Your task to perform on an android device: Search for "amazon basics triple a" on target.com, select the first entry, add it to the cart, then select checkout. Image 0: 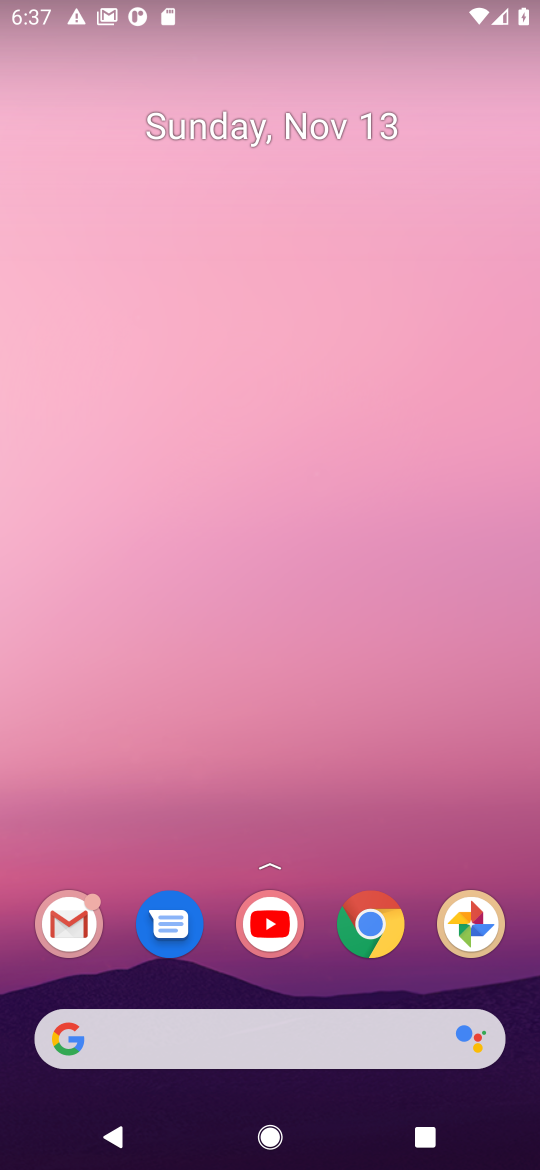
Step 0: click (366, 924)
Your task to perform on an android device: Search for "amazon basics triple a" on target.com, select the first entry, add it to the cart, then select checkout. Image 1: 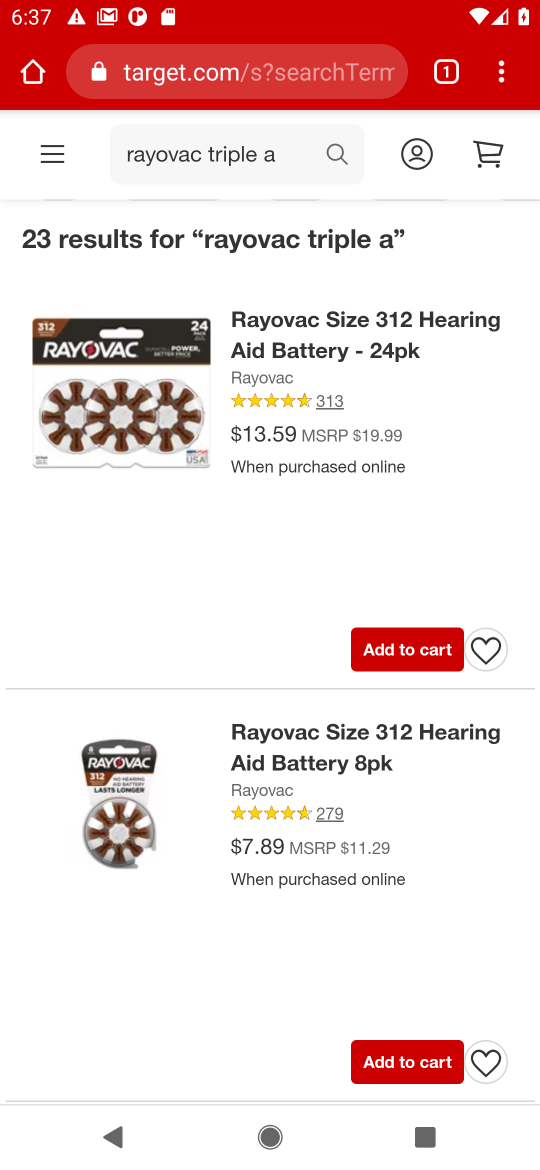
Step 1: click (337, 154)
Your task to perform on an android device: Search for "amazon basics triple a" on target.com, select the first entry, add it to the cart, then select checkout. Image 2: 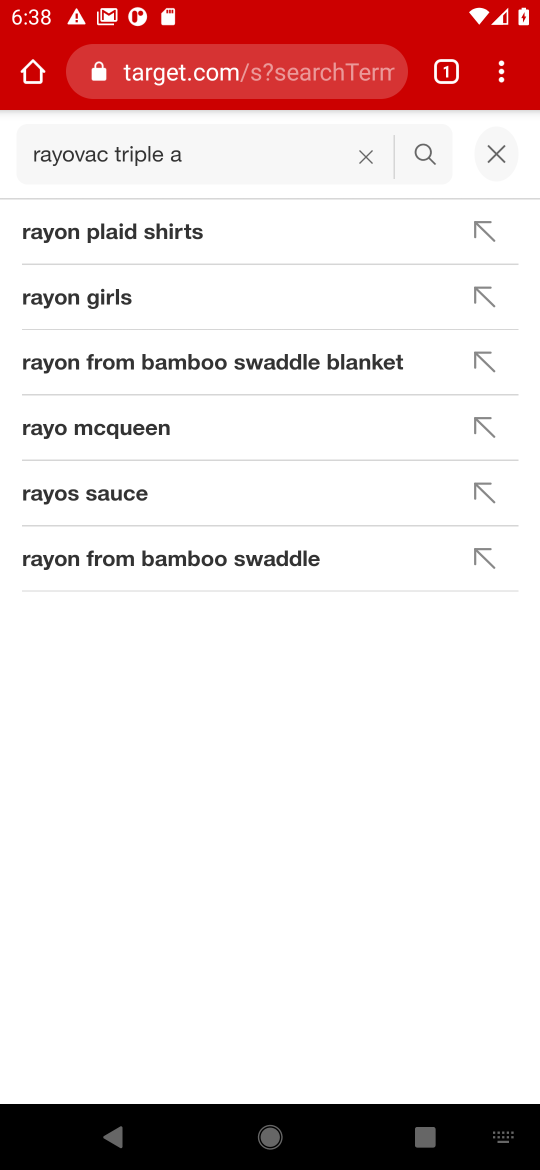
Step 2: click (359, 160)
Your task to perform on an android device: Search for "amazon basics triple a" on target.com, select the first entry, add it to the cart, then select checkout. Image 3: 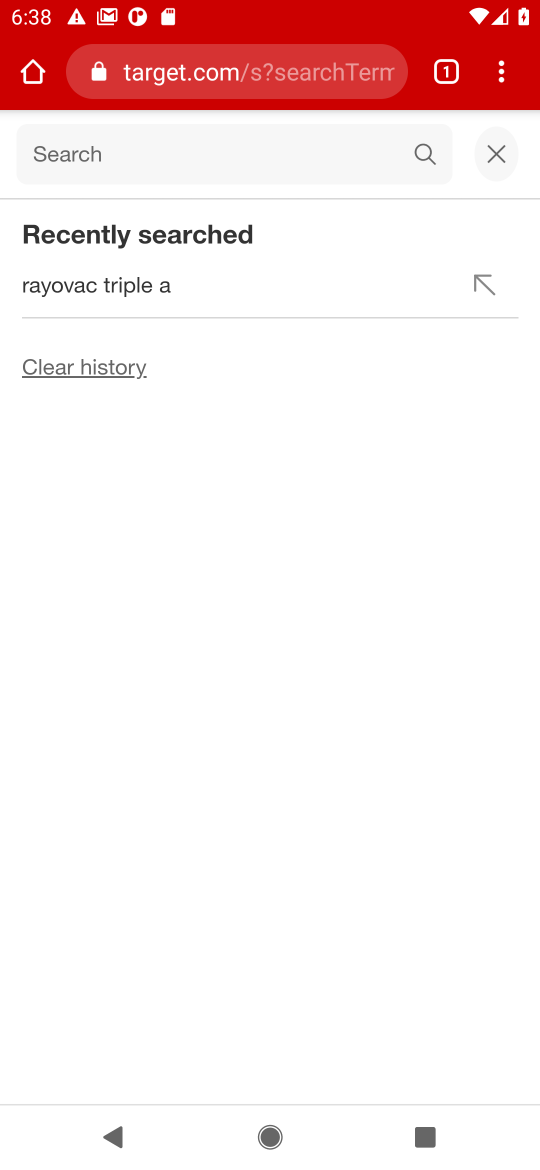
Step 3: type "amazon basics triple a"
Your task to perform on an android device: Search for "amazon basics triple a" on target.com, select the first entry, add it to the cart, then select checkout. Image 4: 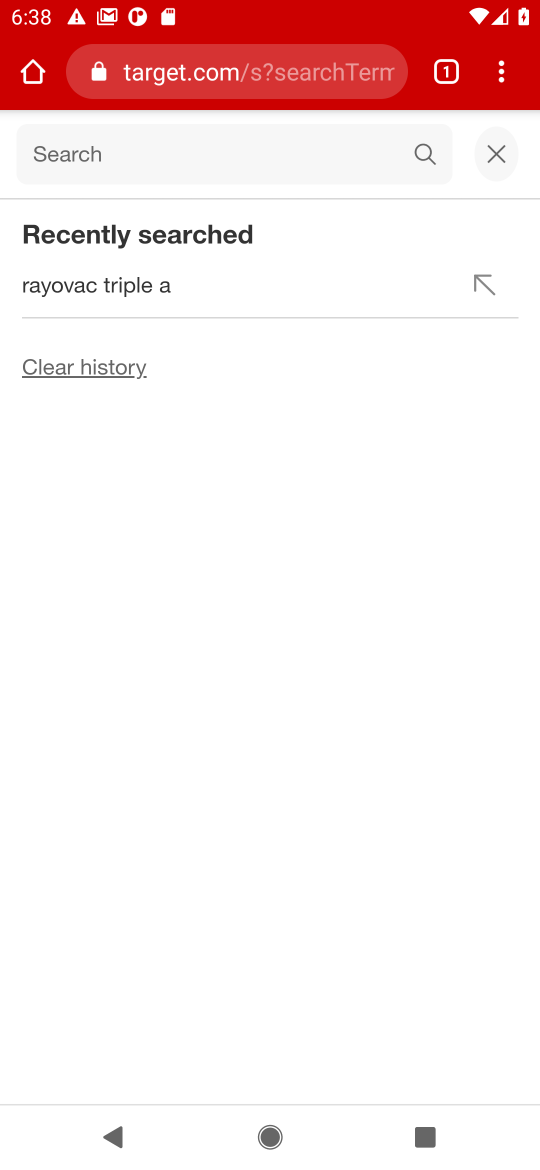
Step 4: click (241, 157)
Your task to perform on an android device: Search for "amazon basics triple a" on target.com, select the first entry, add it to the cart, then select checkout. Image 5: 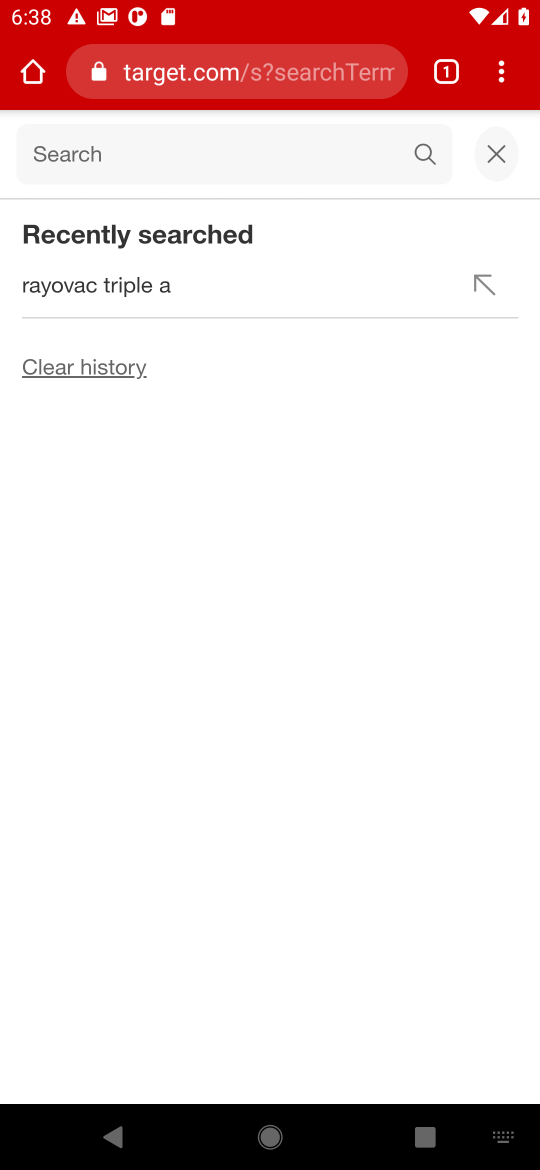
Step 5: type "amazon basics triple a"
Your task to perform on an android device: Search for "amazon basics triple a" on target.com, select the first entry, add it to the cart, then select checkout. Image 6: 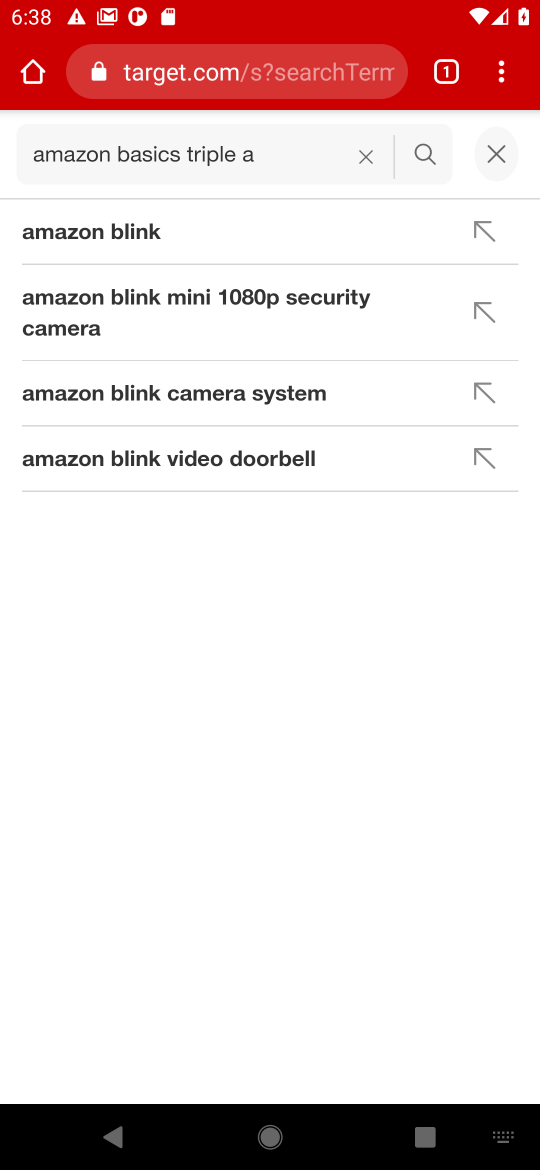
Step 6: click (426, 159)
Your task to perform on an android device: Search for "amazon basics triple a" on target.com, select the first entry, add it to the cart, then select checkout. Image 7: 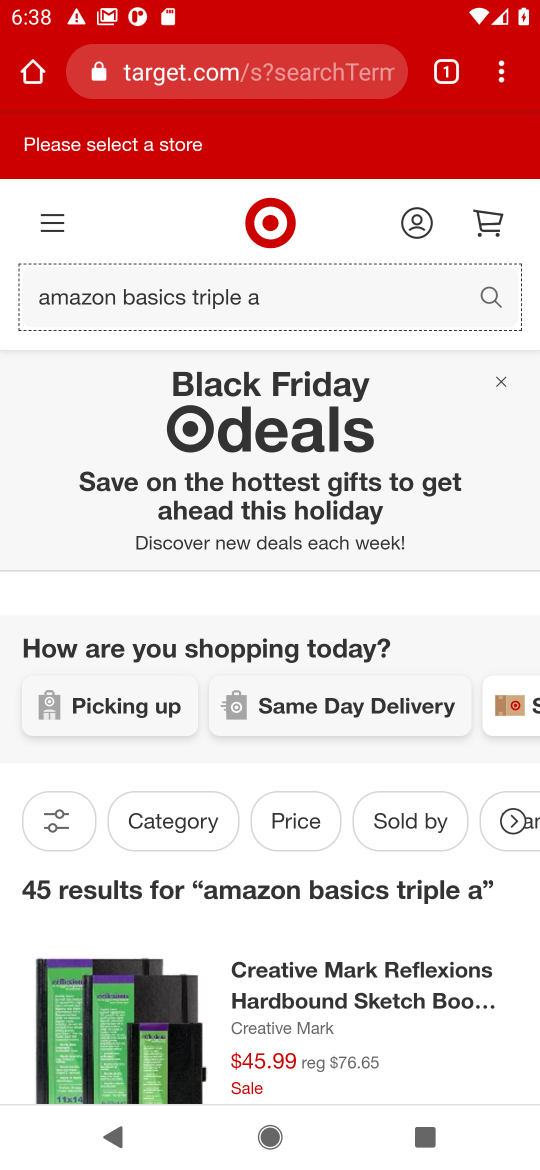
Step 7: task complete